Your task to perform on an android device: open the mobile data screen to see how much data has been used Image 0: 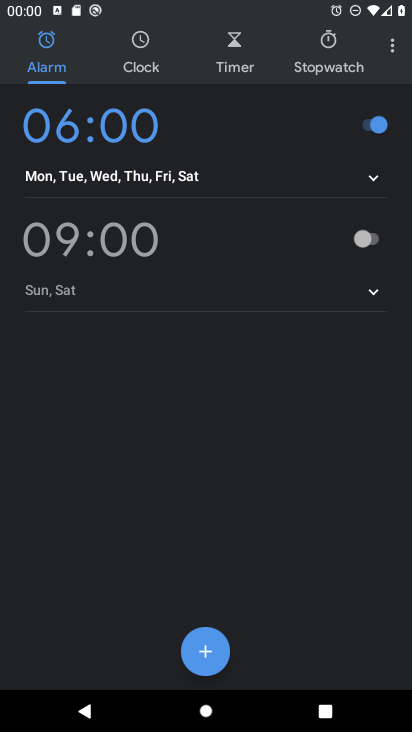
Step 0: press home button
Your task to perform on an android device: open the mobile data screen to see how much data has been used Image 1: 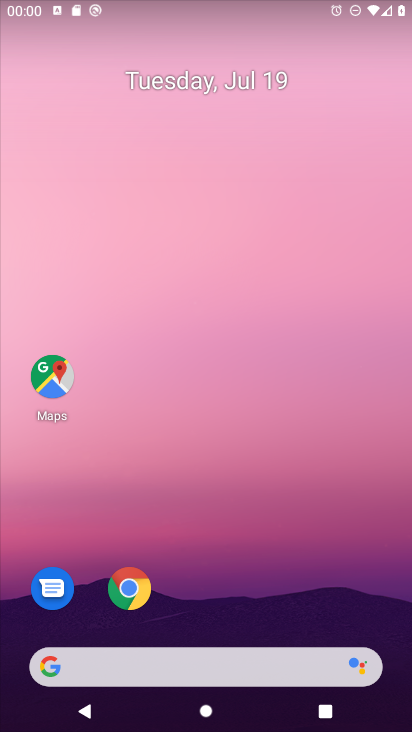
Step 1: drag from (316, 610) to (343, 93)
Your task to perform on an android device: open the mobile data screen to see how much data has been used Image 2: 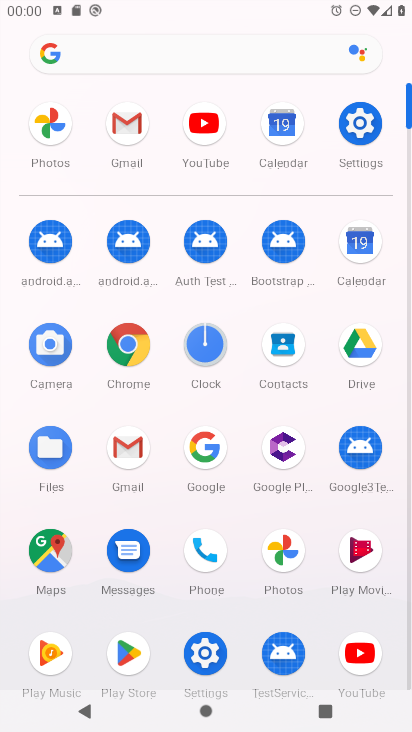
Step 2: click (207, 651)
Your task to perform on an android device: open the mobile data screen to see how much data has been used Image 3: 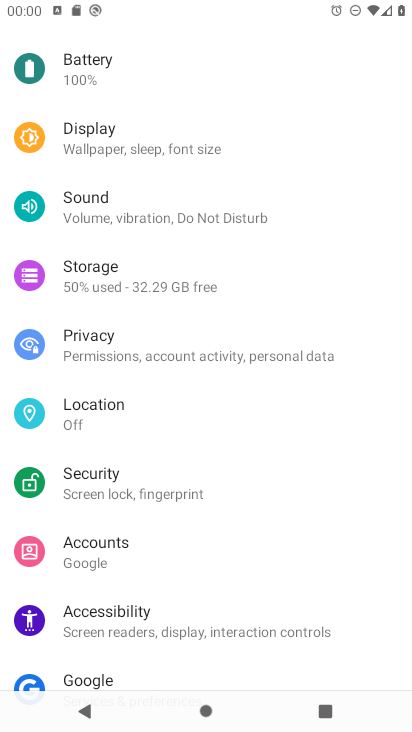
Step 3: drag from (300, 120) to (281, 435)
Your task to perform on an android device: open the mobile data screen to see how much data has been used Image 4: 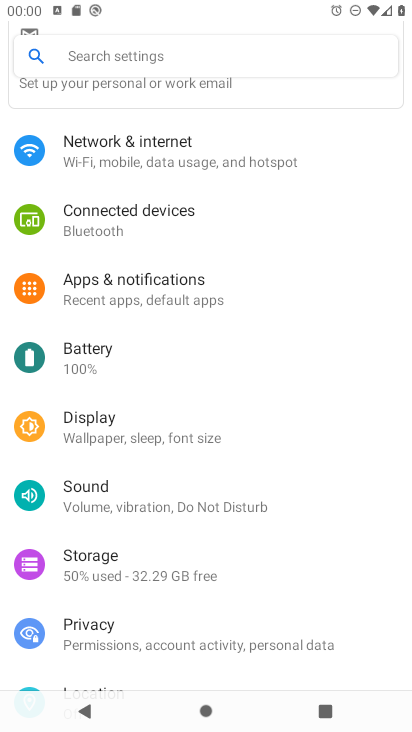
Step 4: click (132, 156)
Your task to perform on an android device: open the mobile data screen to see how much data has been used Image 5: 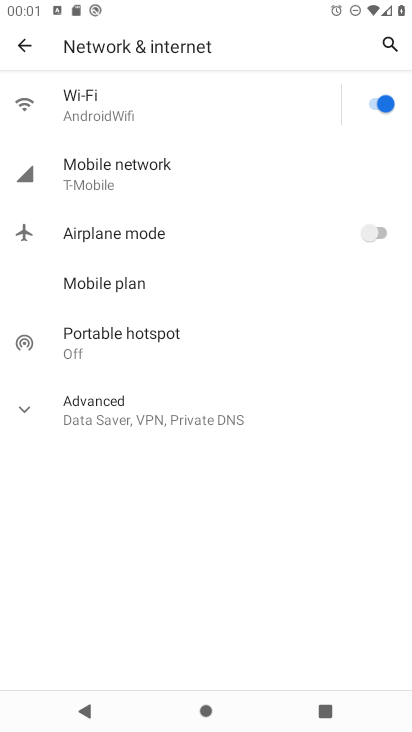
Step 5: click (25, 411)
Your task to perform on an android device: open the mobile data screen to see how much data has been used Image 6: 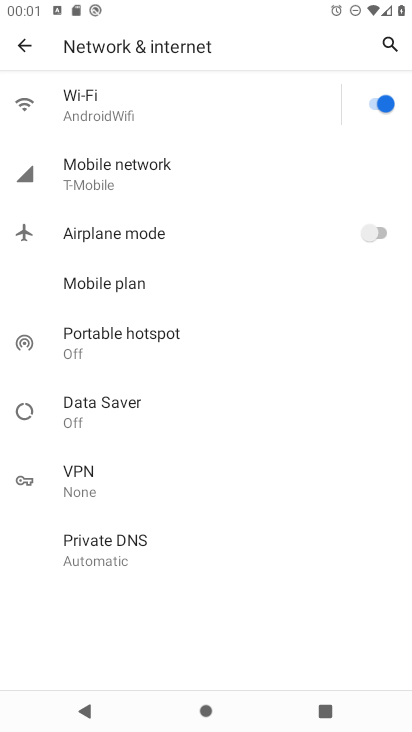
Step 6: click (112, 169)
Your task to perform on an android device: open the mobile data screen to see how much data has been used Image 7: 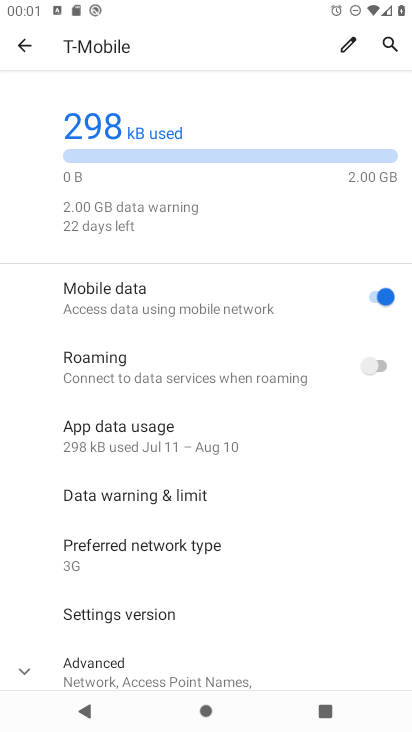
Step 7: task complete